Your task to perform on an android device: change keyboard looks Image 0: 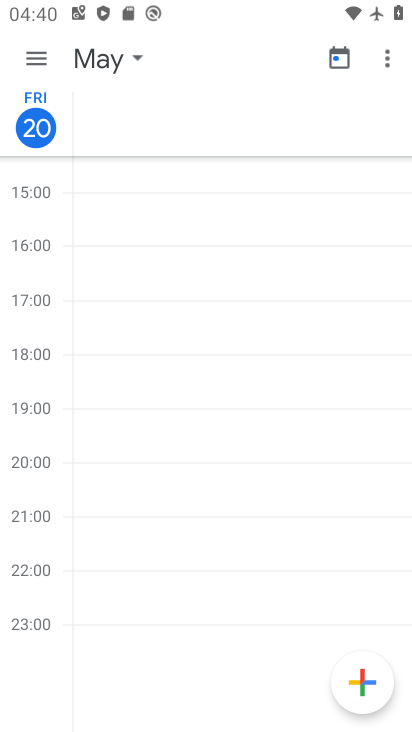
Step 0: press back button
Your task to perform on an android device: change keyboard looks Image 1: 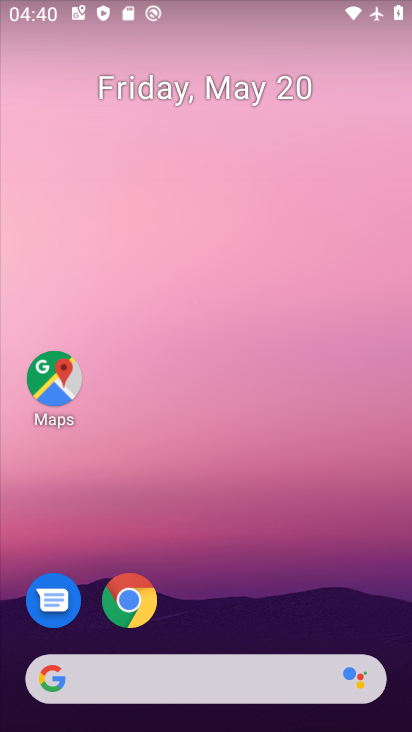
Step 1: drag from (245, 586) to (223, 3)
Your task to perform on an android device: change keyboard looks Image 2: 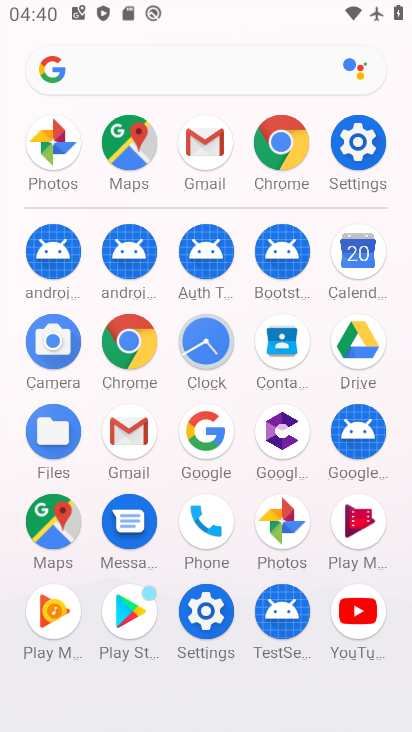
Step 2: drag from (14, 549) to (9, 241)
Your task to perform on an android device: change keyboard looks Image 3: 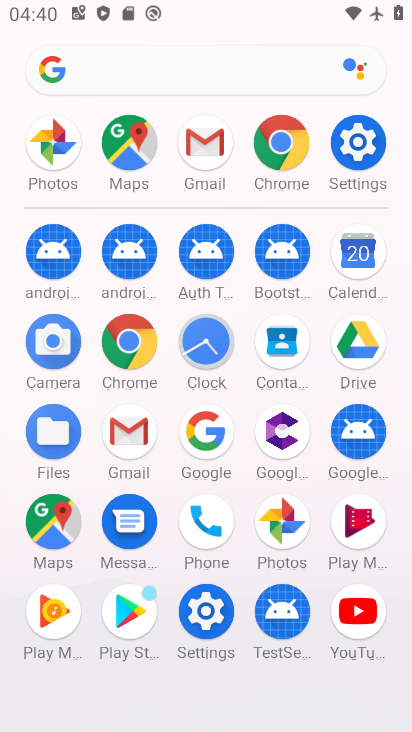
Step 3: click (203, 617)
Your task to perform on an android device: change keyboard looks Image 4: 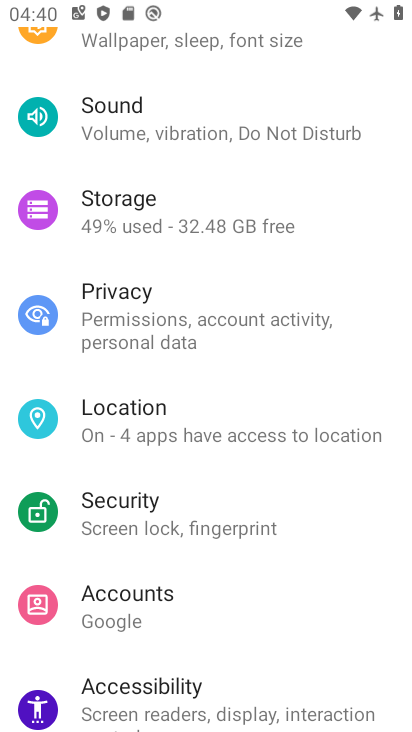
Step 4: drag from (237, 634) to (252, 32)
Your task to perform on an android device: change keyboard looks Image 5: 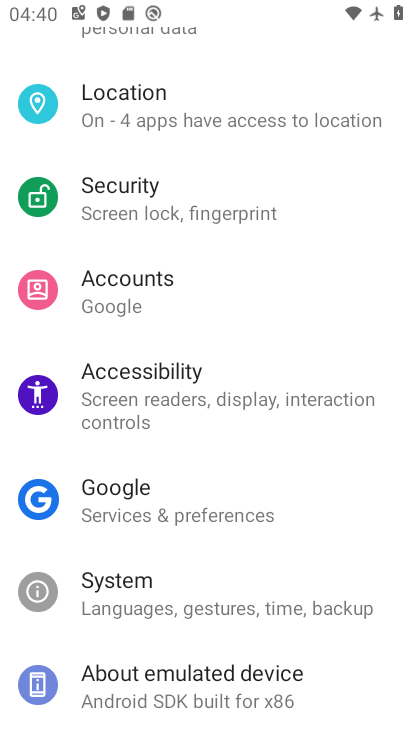
Step 5: click (219, 597)
Your task to perform on an android device: change keyboard looks Image 6: 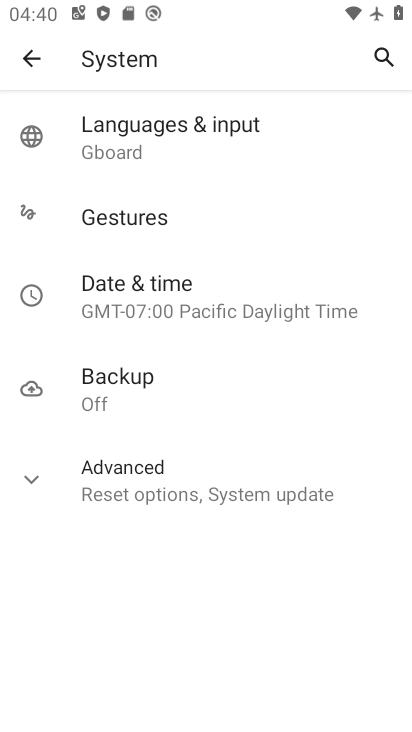
Step 6: click (75, 463)
Your task to perform on an android device: change keyboard looks Image 7: 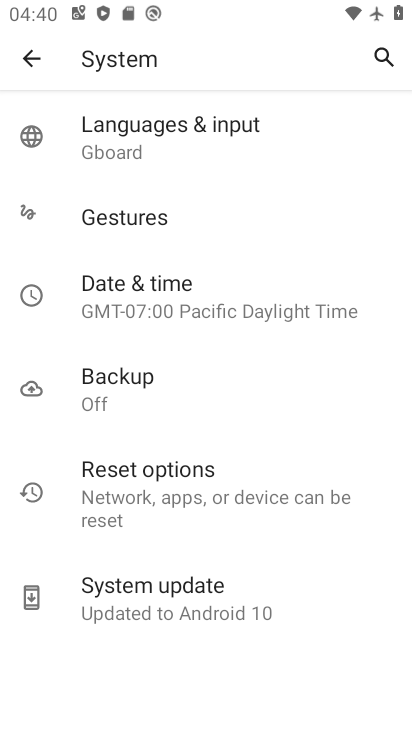
Step 7: click (163, 142)
Your task to perform on an android device: change keyboard looks Image 8: 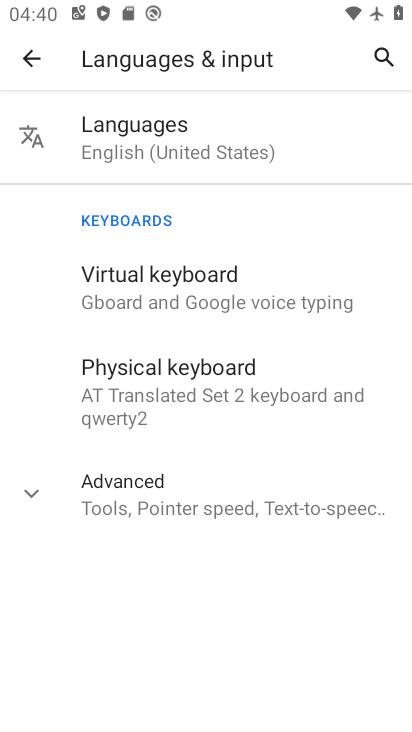
Step 8: click (230, 252)
Your task to perform on an android device: change keyboard looks Image 9: 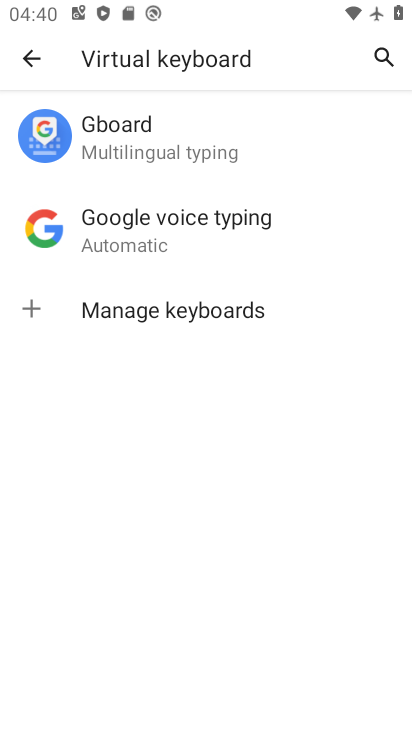
Step 9: click (176, 140)
Your task to perform on an android device: change keyboard looks Image 10: 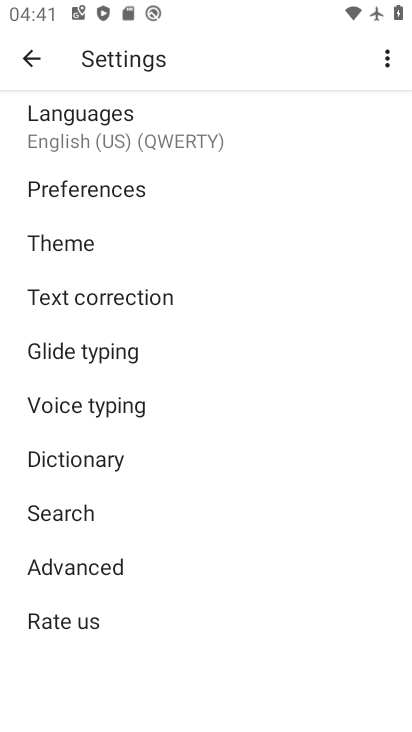
Step 10: click (99, 242)
Your task to perform on an android device: change keyboard looks Image 11: 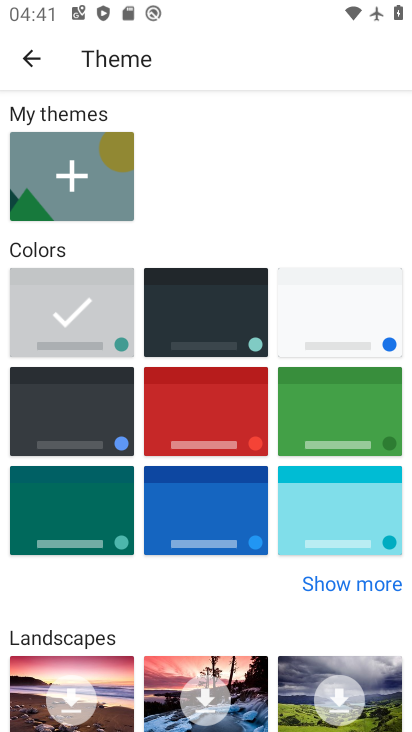
Step 11: click (197, 297)
Your task to perform on an android device: change keyboard looks Image 12: 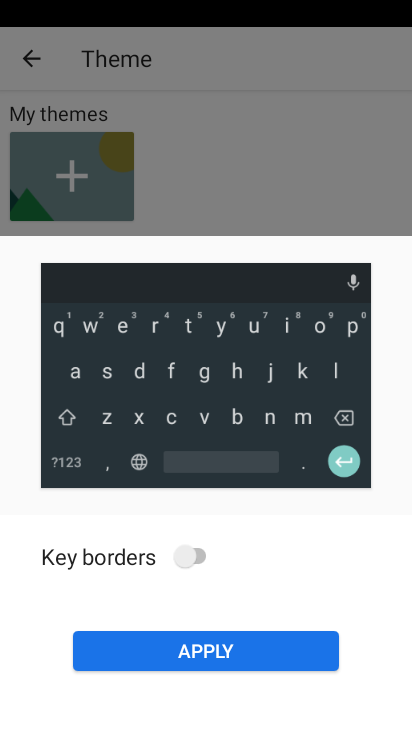
Step 12: click (220, 668)
Your task to perform on an android device: change keyboard looks Image 13: 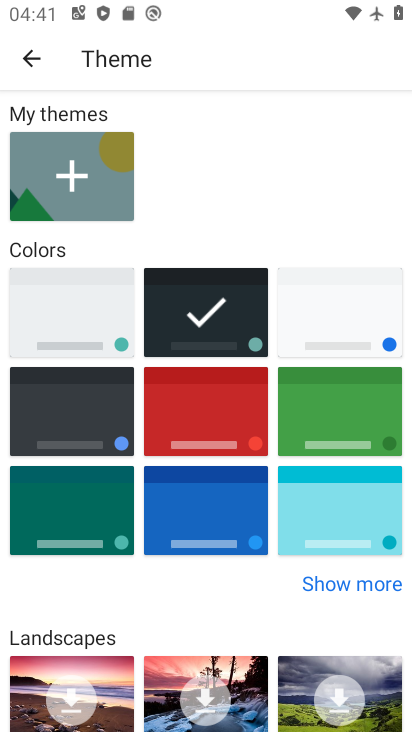
Step 13: task complete